Your task to perform on an android device: change timer sound Image 0: 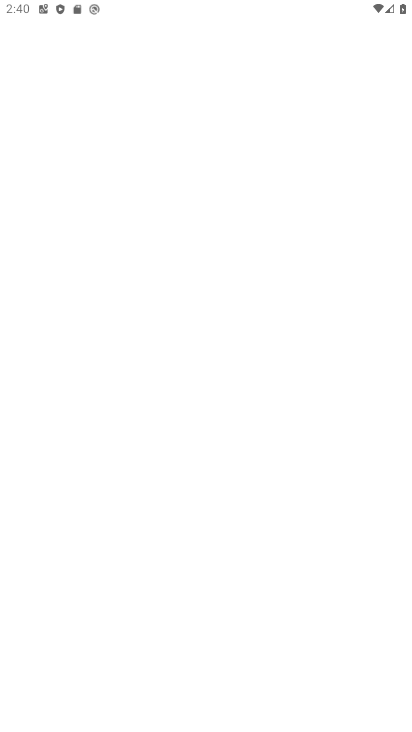
Step 0: press home button
Your task to perform on an android device: change timer sound Image 1: 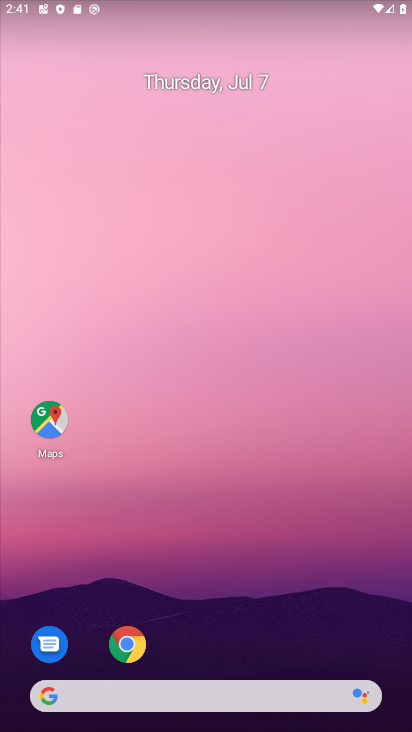
Step 1: drag from (267, 476) to (314, 66)
Your task to perform on an android device: change timer sound Image 2: 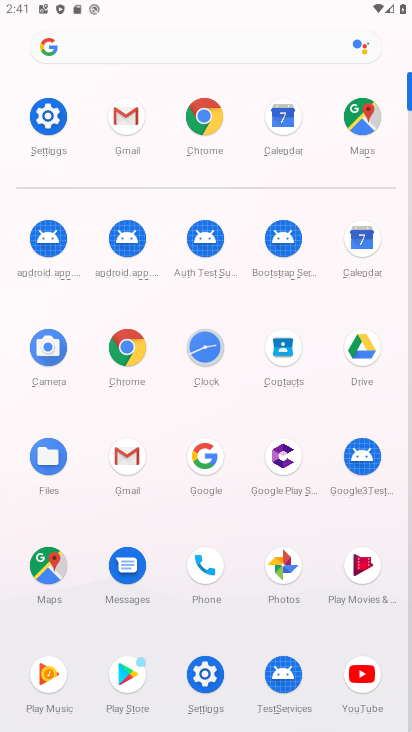
Step 2: click (209, 348)
Your task to perform on an android device: change timer sound Image 3: 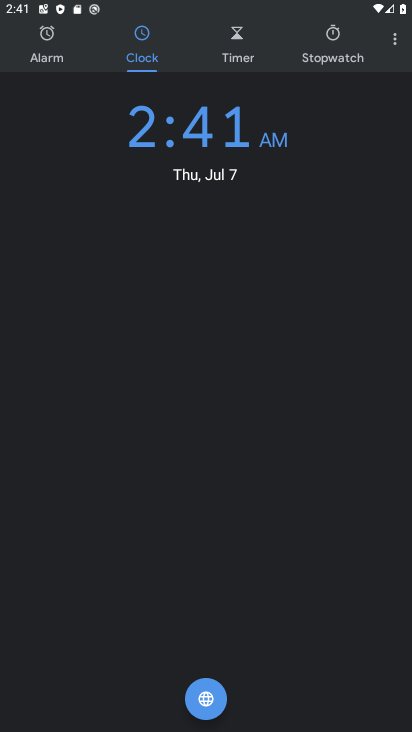
Step 3: click (393, 37)
Your task to perform on an android device: change timer sound Image 4: 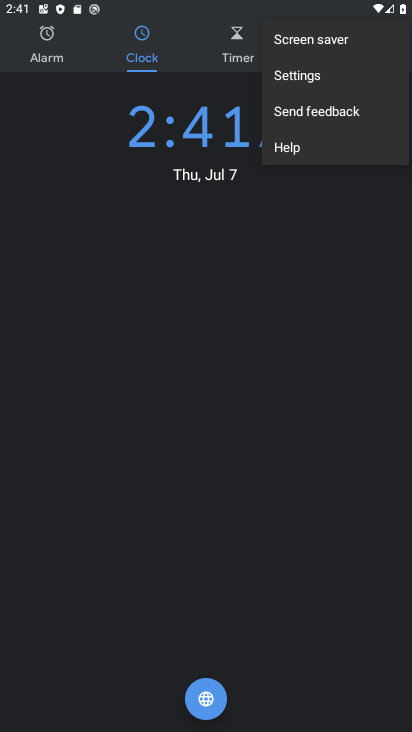
Step 4: click (302, 79)
Your task to perform on an android device: change timer sound Image 5: 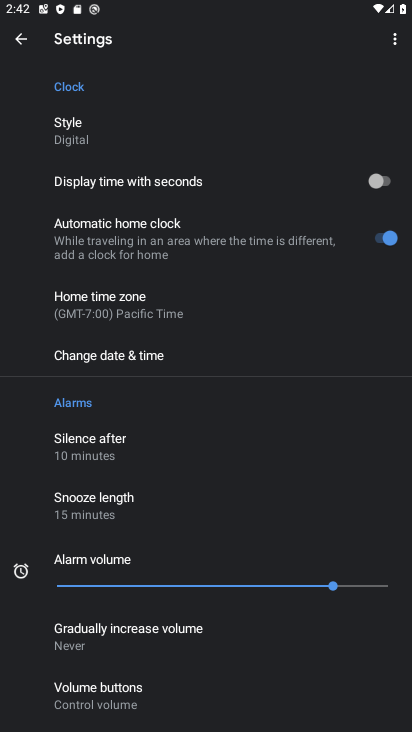
Step 5: drag from (218, 538) to (247, 8)
Your task to perform on an android device: change timer sound Image 6: 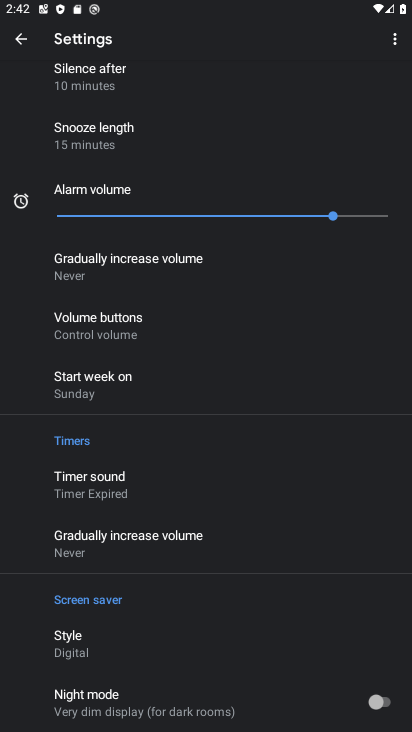
Step 6: click (92, 473)
Your task to perform on an android device: change timer sound Image 7: 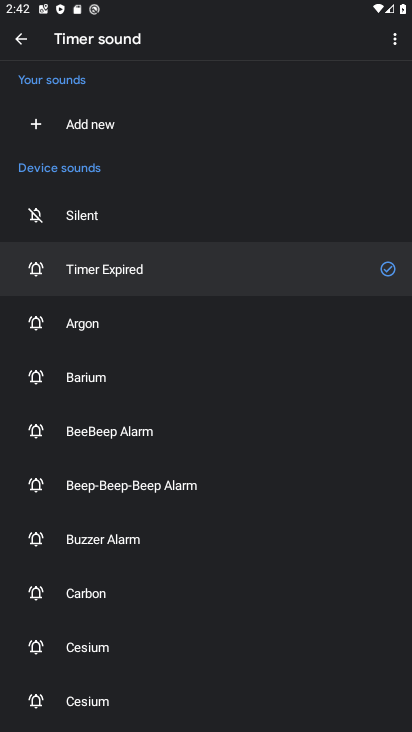
Step 7: click (34, 328)
Your task to perform on an android device: change timer sound Image 8: 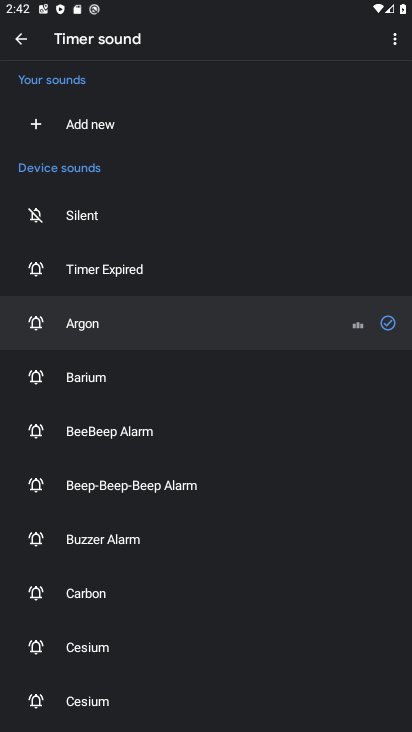
Step 8: task complete